Your task to perform on an android device: toggle notifications settings in the gmail app Image 0: 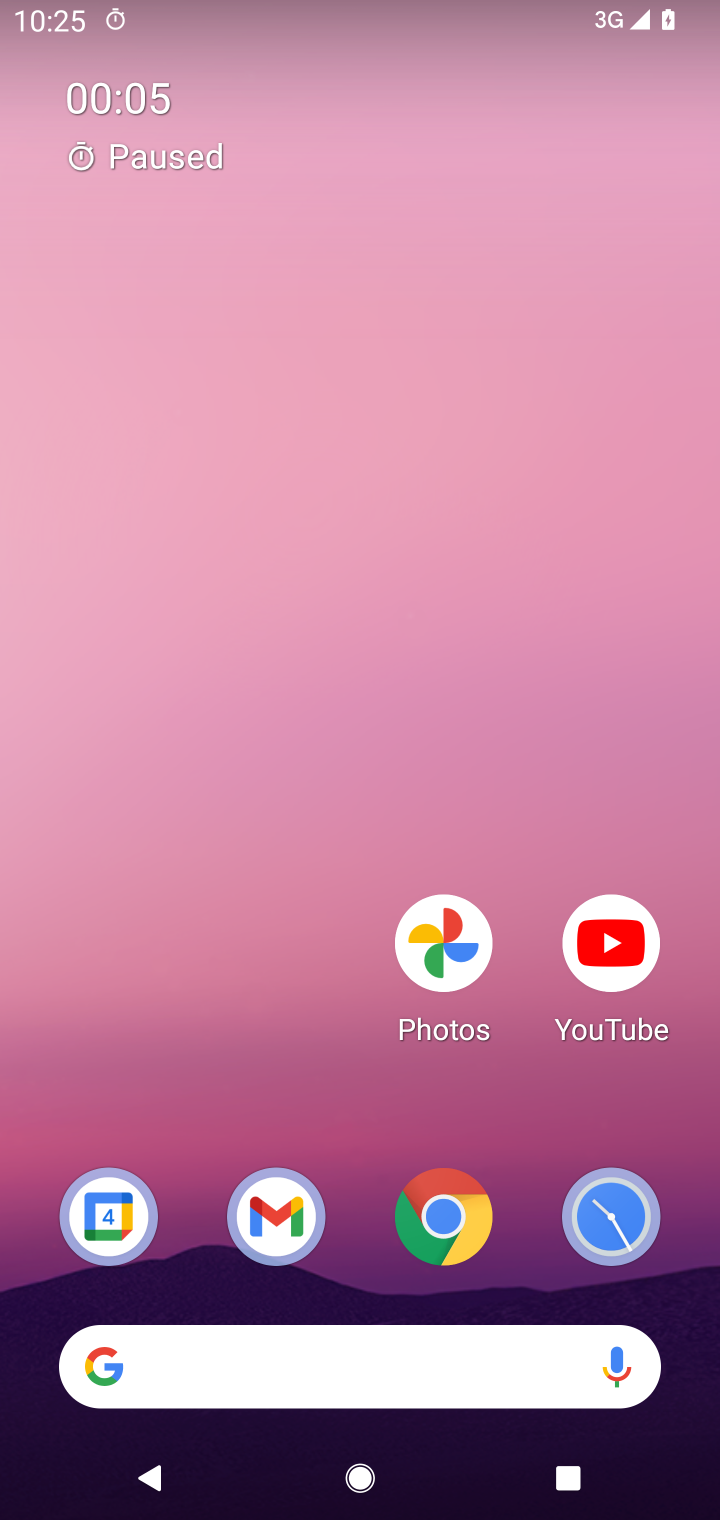
Step 0: drag from (344, 1303) to (368, 103)
Your task to perform on an android device: toggle notifications settings in the gmail app Image 1: 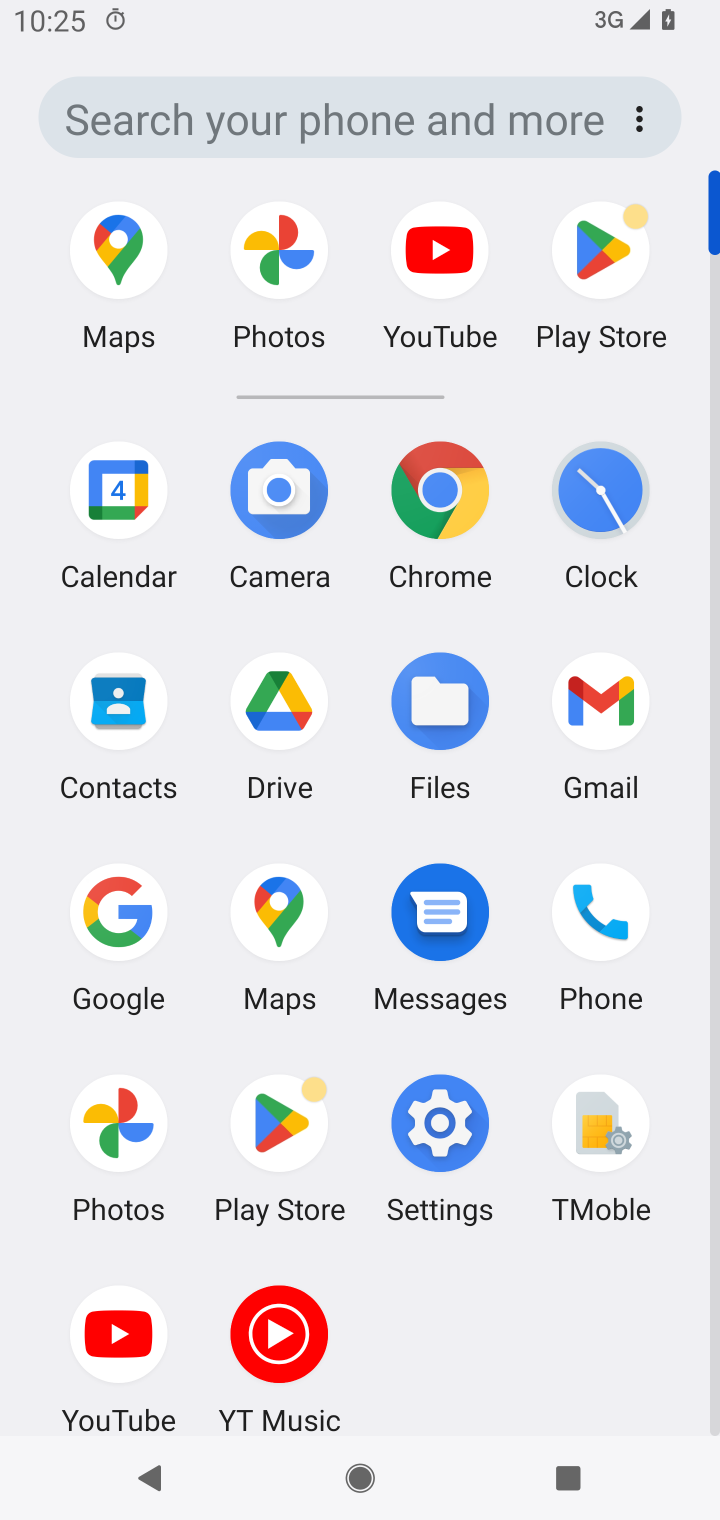
Step 1: click (607, 696)
Your task to perform on an android device: toggle notifications settings in the gmail app Image 2: 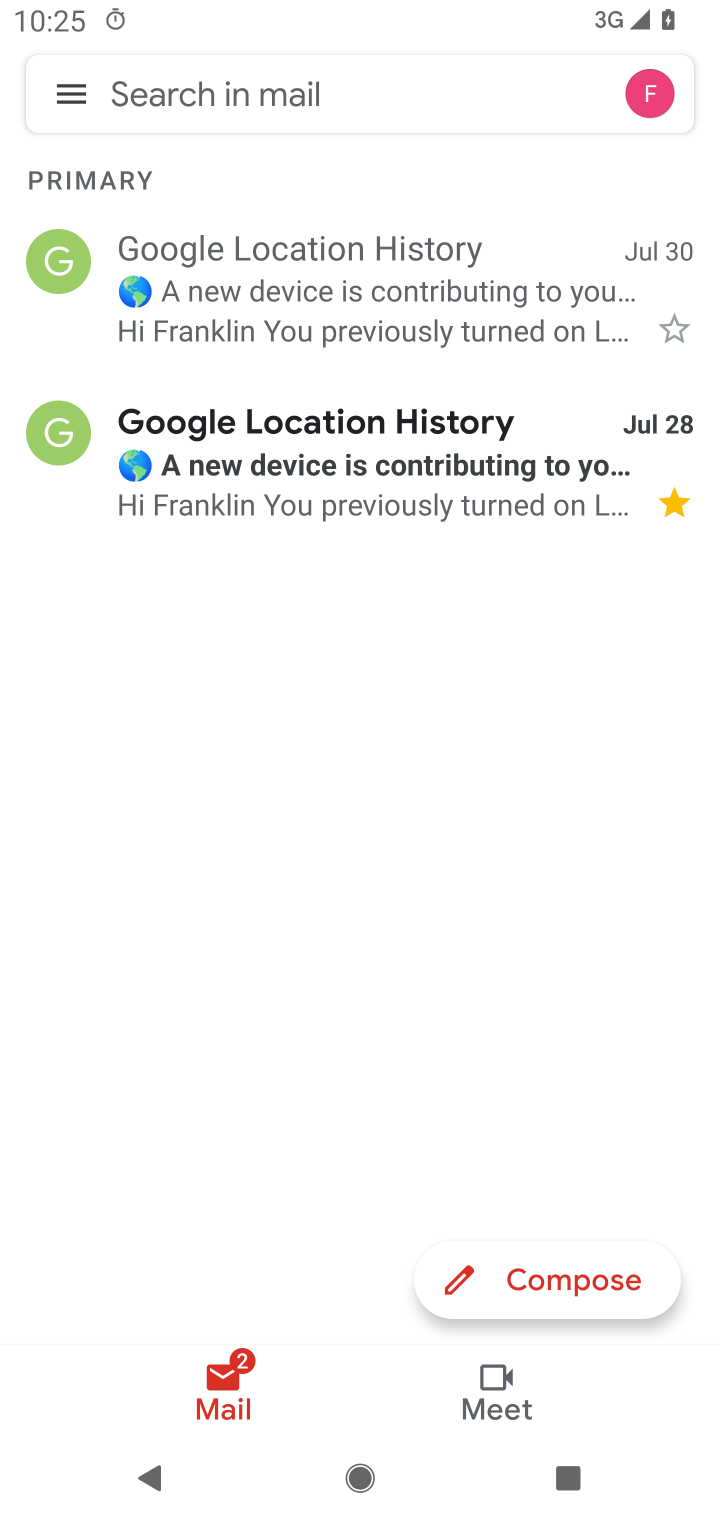
Step 2: click (75, 93)
Your task to perform on an android device: toggle notifications settings in the gmail app Image 3: 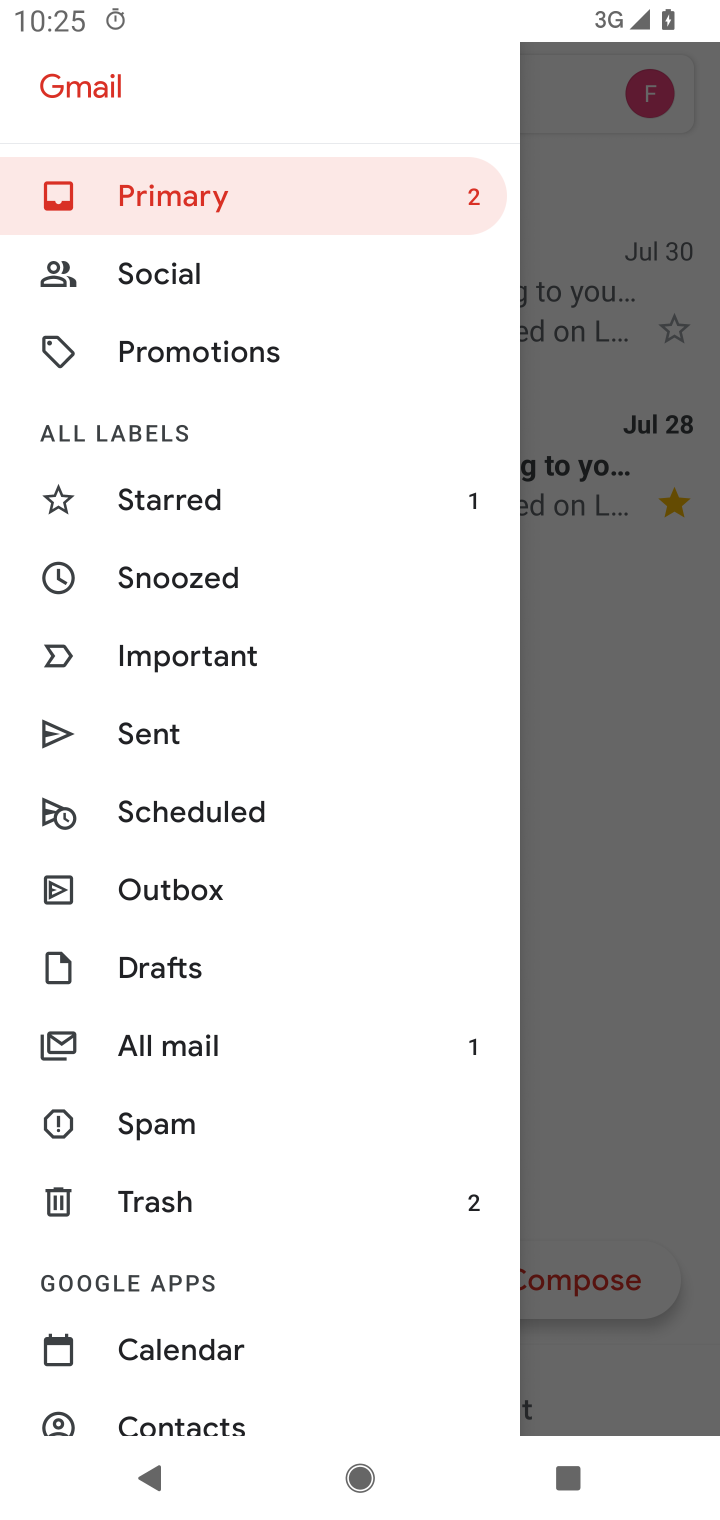
Step 3: drag from (219, 1371) to (227, 769)
Your task to perform on an android device: toggle notifications settings in the gmail app Image 4: 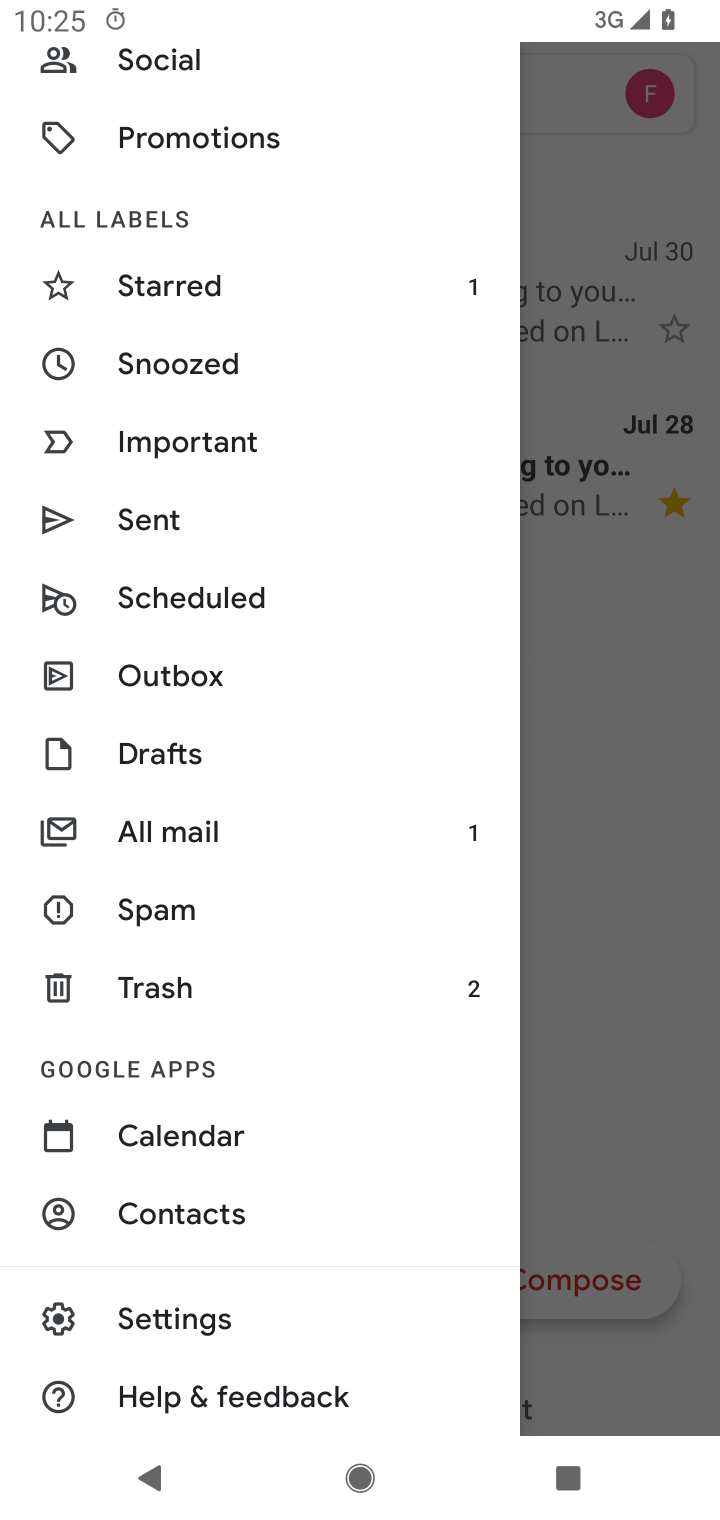
Step 4: click (196, 1313)
Your task to perform on an android device: toggle notifications settings in the gmail app Image 5: 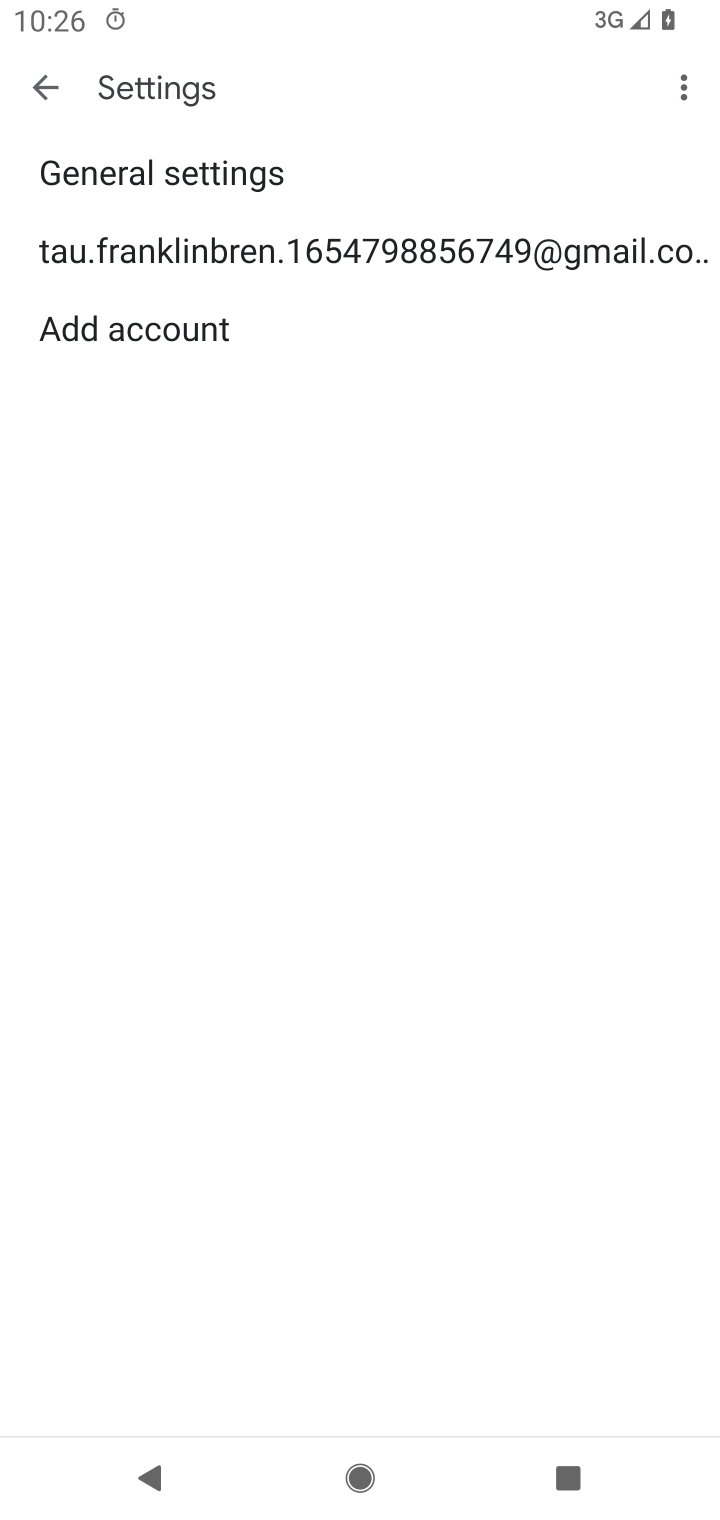
Step 5: click (237, 243)
Your task to perform on an android device: toggle notifications settings in the gmail app Image 6: 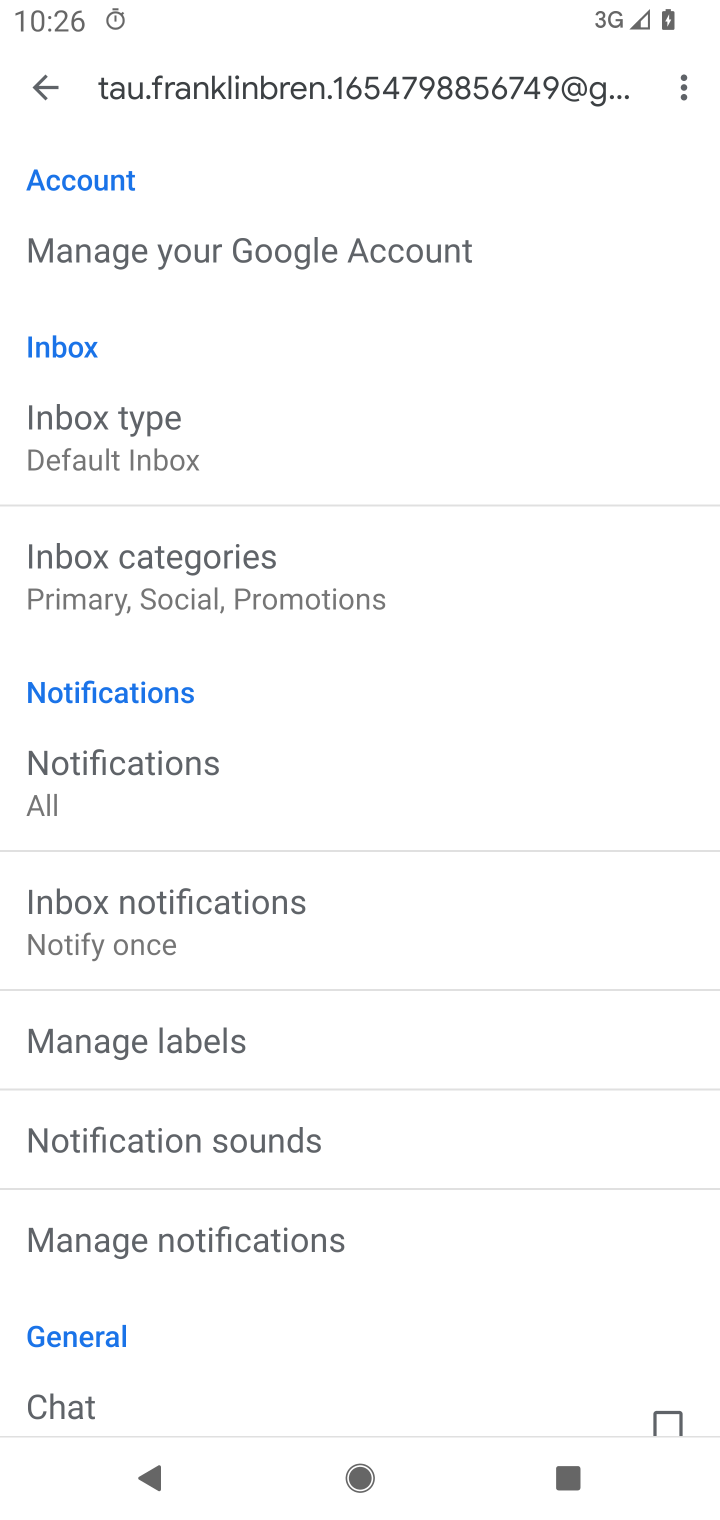
Step 6: click (140, 761)
Your task to perform on an android device: toggle notifications settings in the gmail app Image 7: 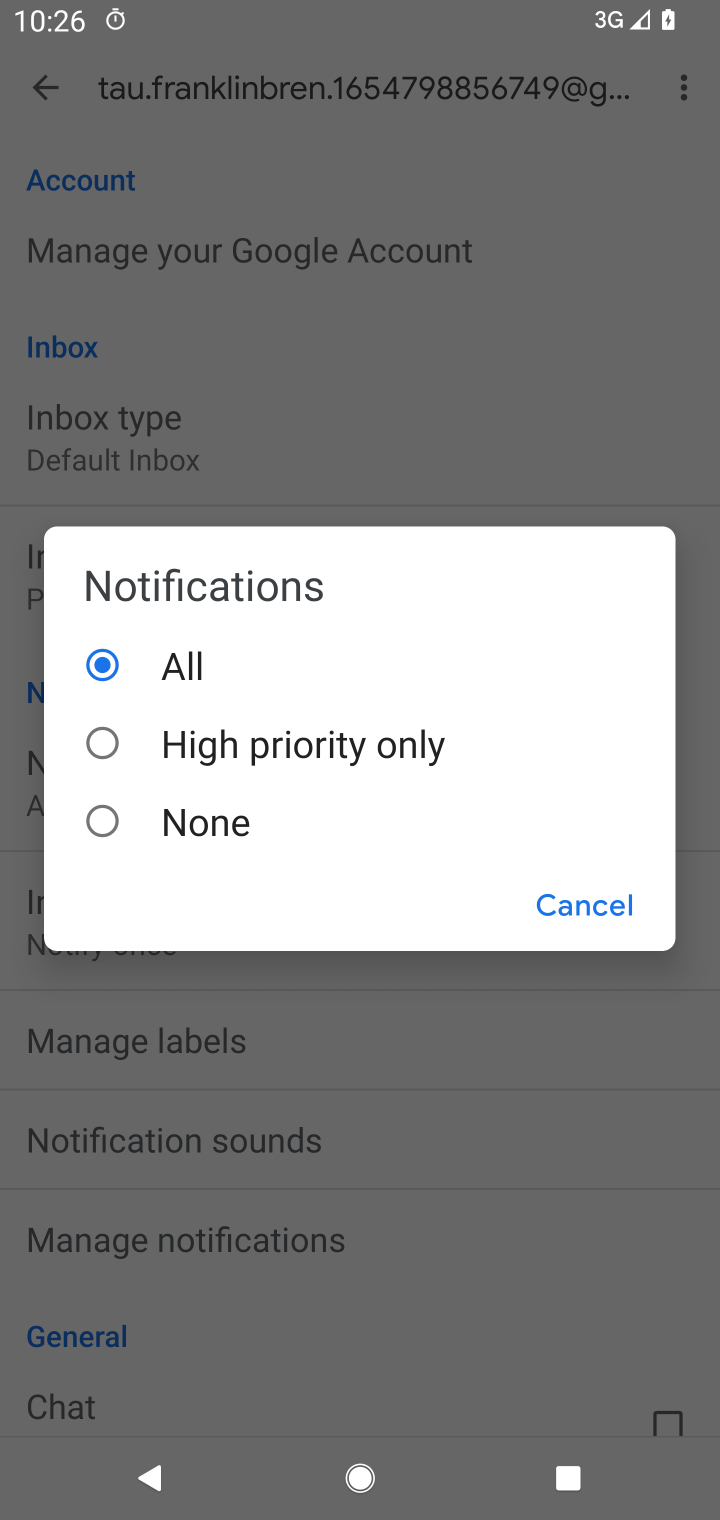
Step 7: click (107, 735)
Your task to perform on an android device: toggle notifications settings in the gmail app Image 8: 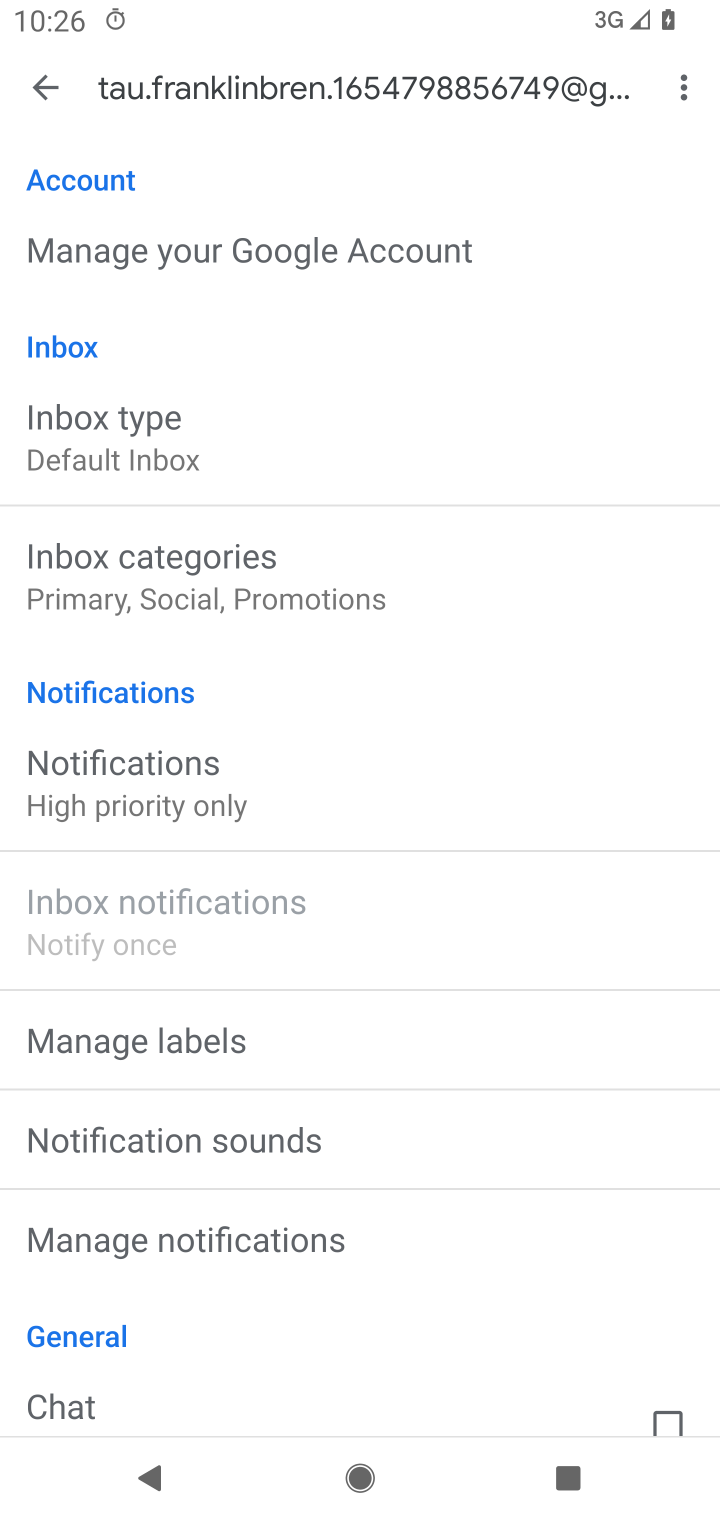
Step 8: task complete